Your task to perform on an android device: move an email to a new category in the gmail app Image 0: 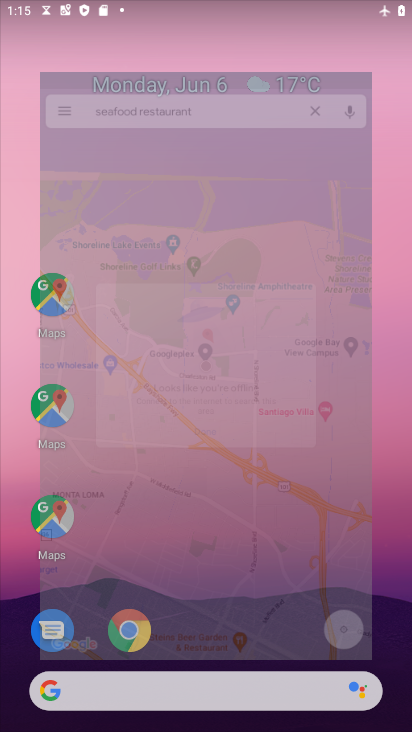
Step 0: drag from (326, 693) to (200, 49)
Your task to perform on an android device: move an email to a new category in the gmail app Image 1: 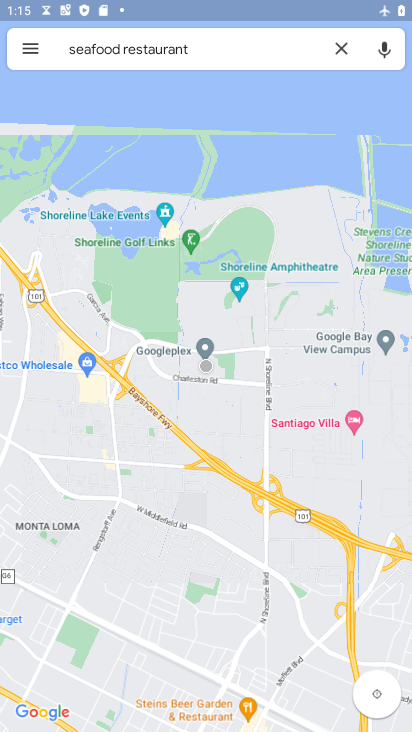
Step 1: drag from (216, 583) to (118, 71)
Your task to perform on an android device: move an email to a new category in the gmail app Image 2: 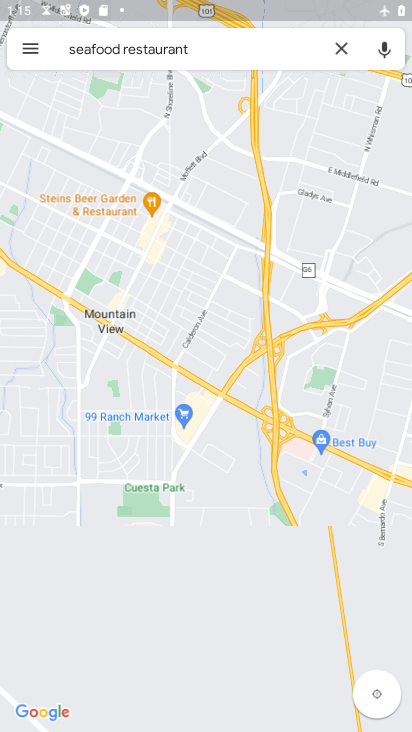
Step 2: drag from (276, 716) to (127, 85)
Your task to perform on an android device: move an email to a new category in the gmail app Image 3: 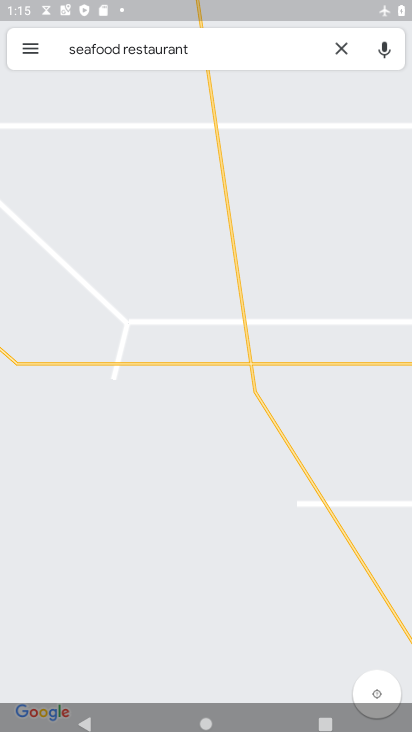
Step 3: press back button
Your task to perform on an android device: move an email to a new category in the gmail app Image 4: 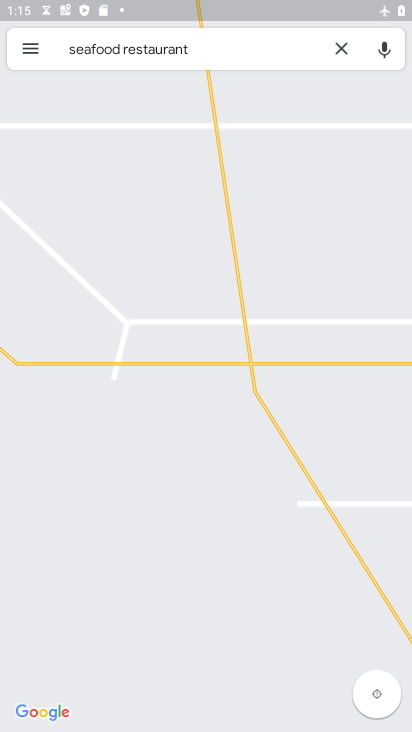
Step 4: press back button
Your task to perform on an android device: move an email to a new category in the gmail app Image 5: 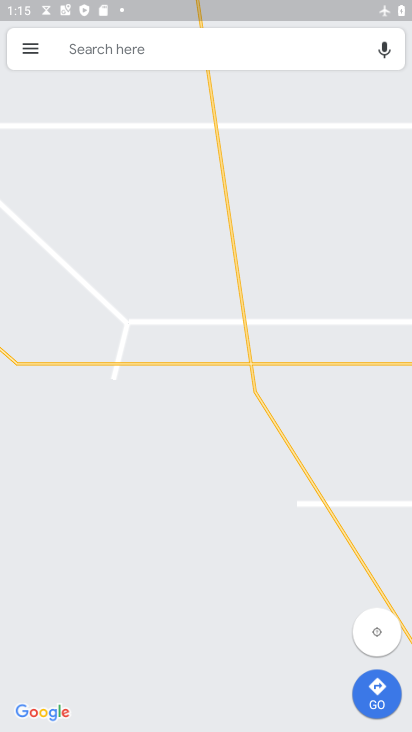
Step 5: press back button
Your task to perform on an android device: move an email to a new category in the gmail app Image 6: 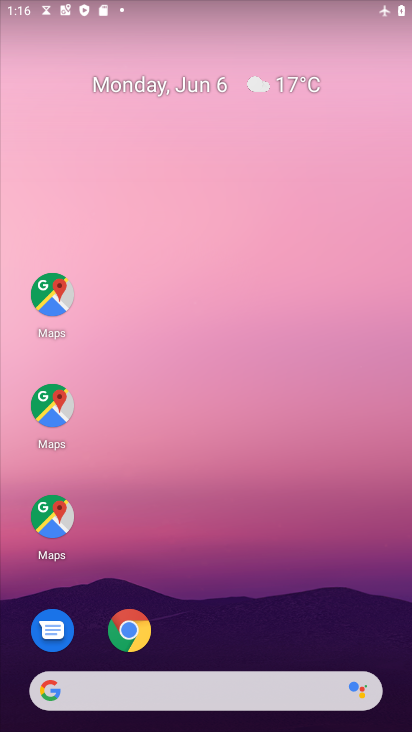
Step 6: press home button
Your task to perform on an android device: move an email to a new category in the gmail app Image 7: 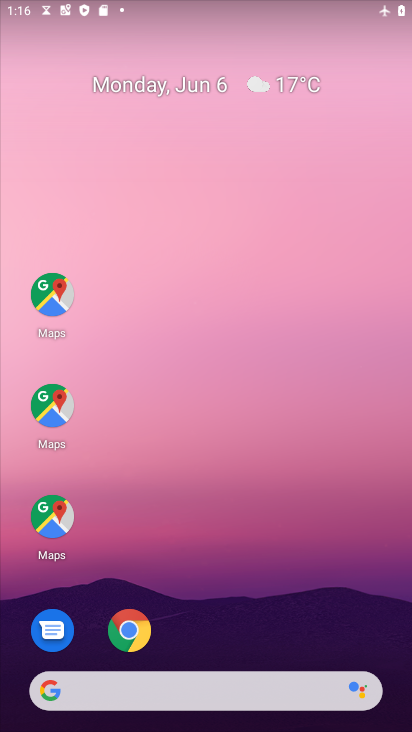
Step 7: drag from (258, 715) to (216, 251)
Your task to perform on an android device: move an email to a new category in the gmail app Image 8: 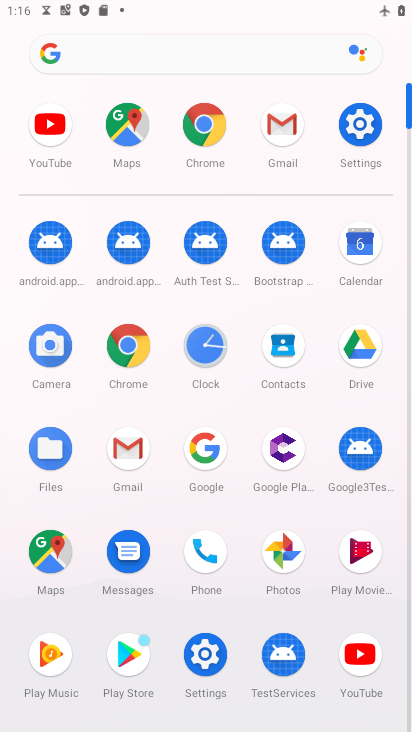
Step 8: click (126, 438)
Your task to perform on an android device: move an email to a new category in the gmail app Image 9: 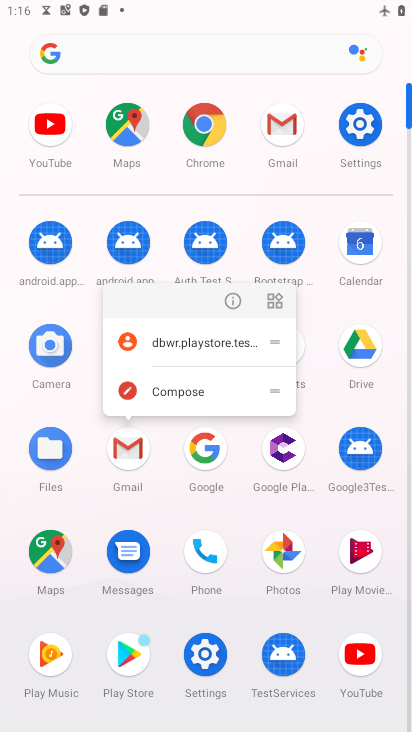
Step 9: click (128, 448)
Your task to perform on an android device: move an email to a new category in the gmail app Image 10: 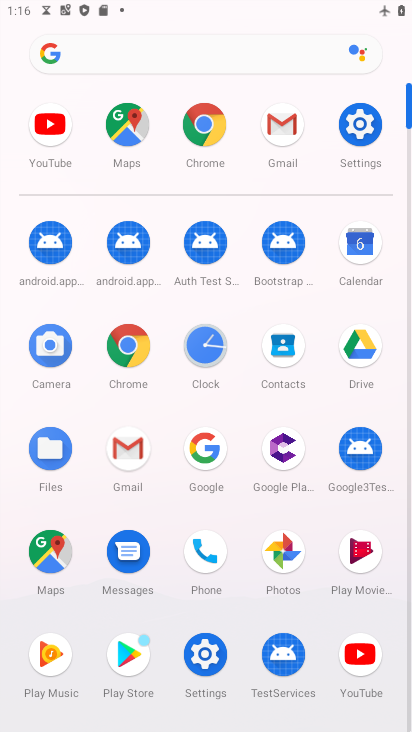
Step 10: click (129, 450)
Your task to perform on an android device: move an email to a new category in the gmail app Image 11: 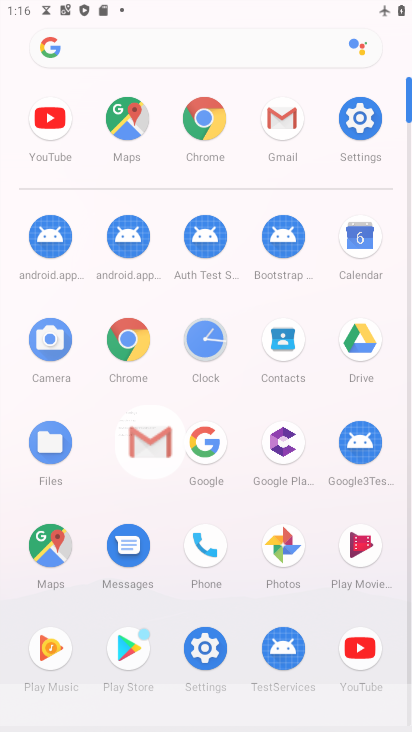
Step 11: click (129, 451)
Your task to perform on an android device: move an email to a new category in the gmail app Image 12: 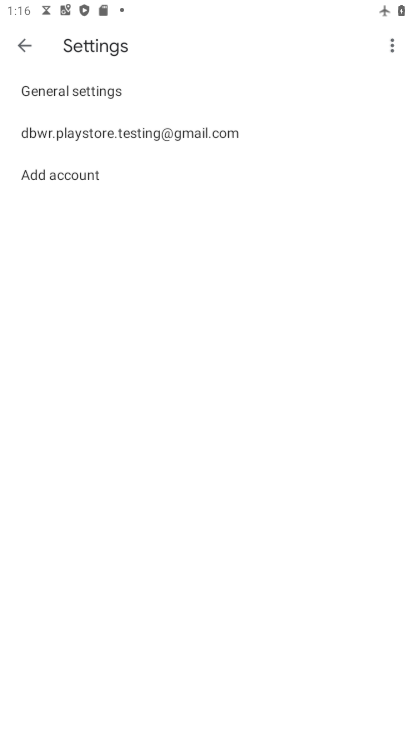
Step 12: click (147, 412)
Your task to perform on an android device: move an email to a new category in the gmail app Image 13: 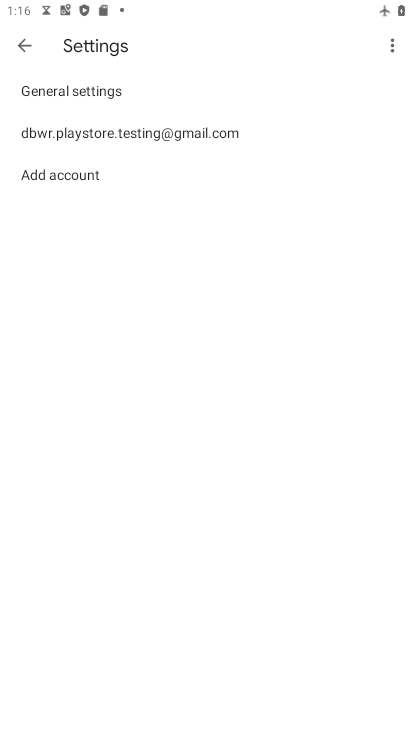
Step 13: click (68, 129)
Your task to perform on an android device: move an email to a new category in the gmail app Image 14: 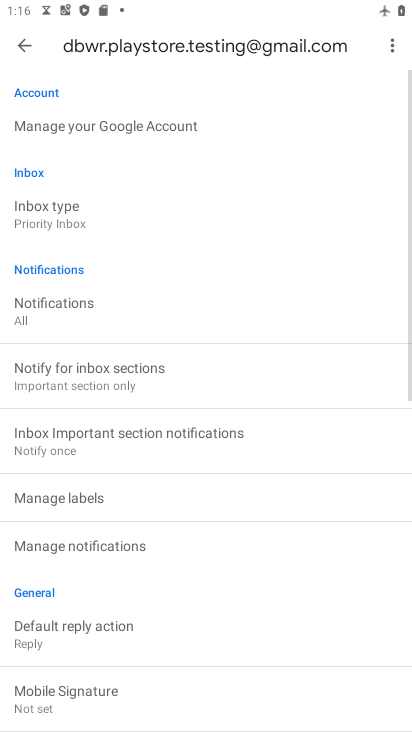
Step 14: click (22, 50)
Your task to perform on an android device: move an email to a new category in the gmail app Image 15: 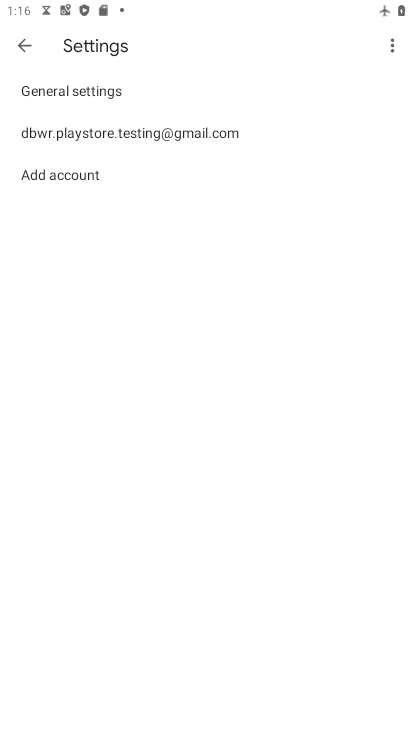
Step 15: click (22, 50)
Your task to perform on an android device: move an email to a new category in the gmail app Image 16: 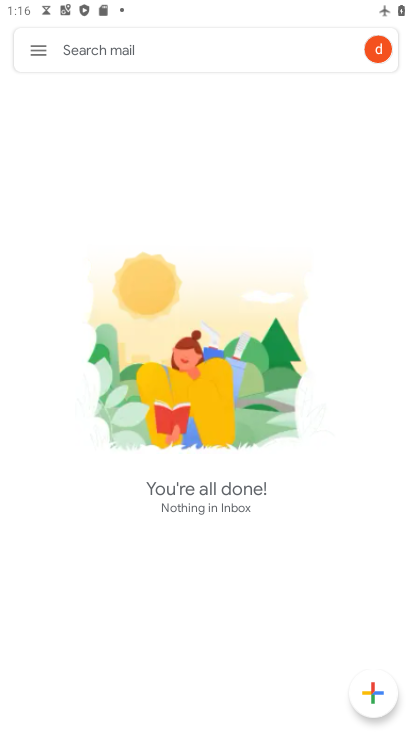
Step 16: click (41, 47)
Your task to perform on an android device: move an email to a new category in the gmail app Image 17: 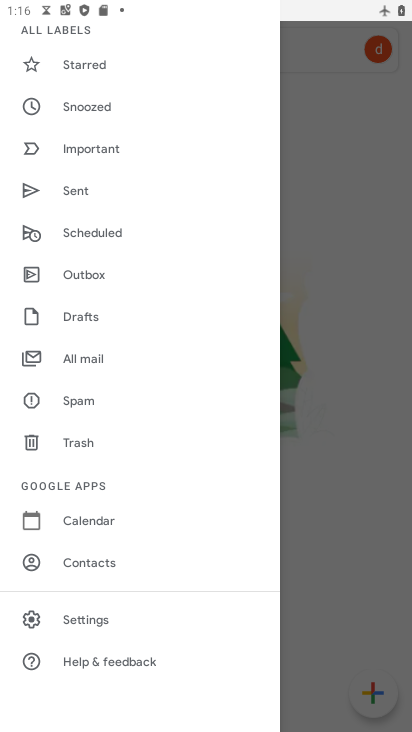
Step 17: click (71, 344)
Your task to perform on an android device: move an email to a new category in the gmail app Image 18: 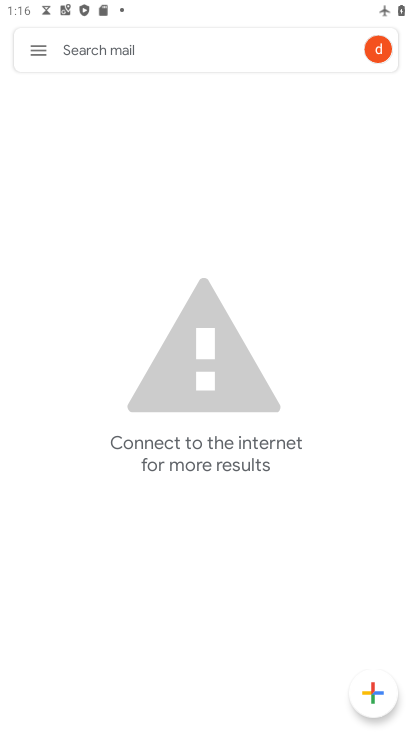
Step 18: click (41, 60)
Your task to perform on an android device: move an email to a new category in the gmail app Image 19: 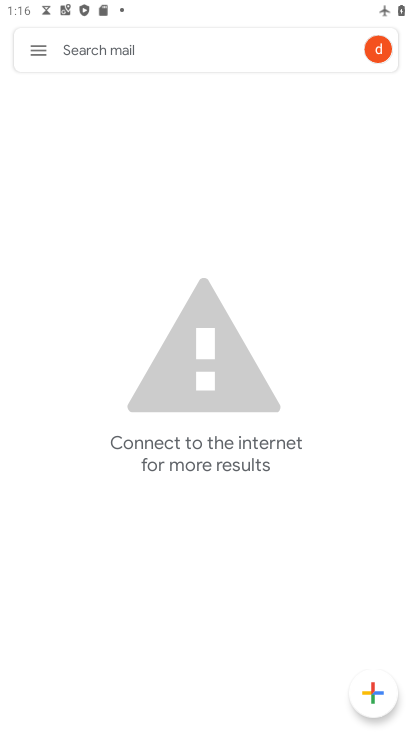
Step 19: click (34, 54)
Your task to perform on an android device: move an email to a new category in the gmail app Image 20: 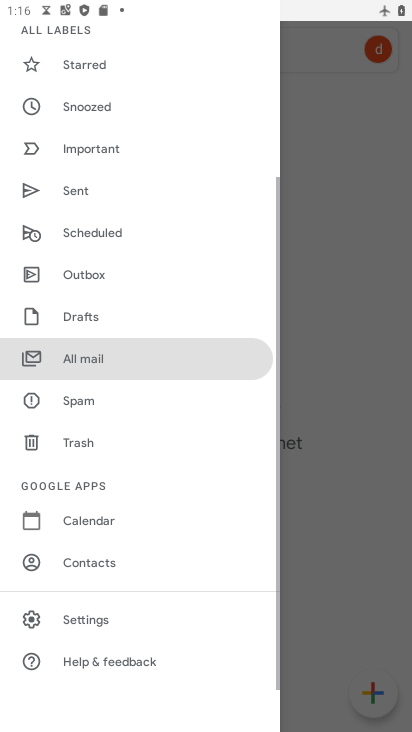
Step 20: click (111, 357)
Your task to perform on an android device: move an email to a new category in the gmail app Image 21: 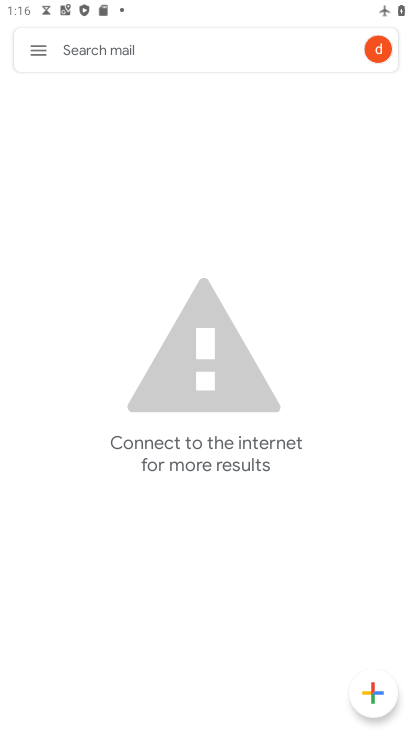
Step 21: task complete